Your task to perform on an android device: Check the weather Image 0: 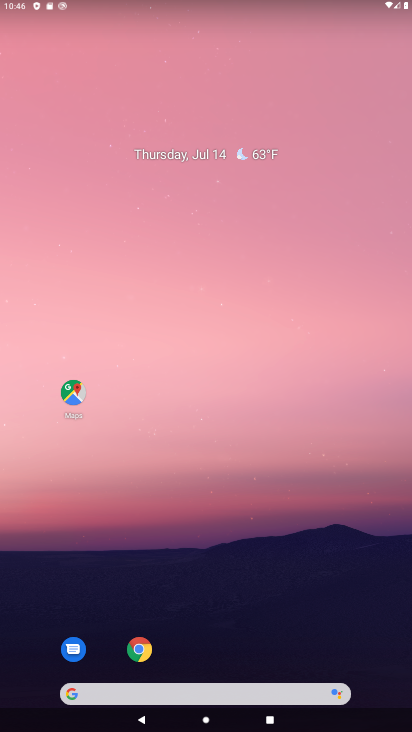
Step 0: drag from (261, 572) to (221, 84)
Your task to perform on an android device: Check the weather Image 1: 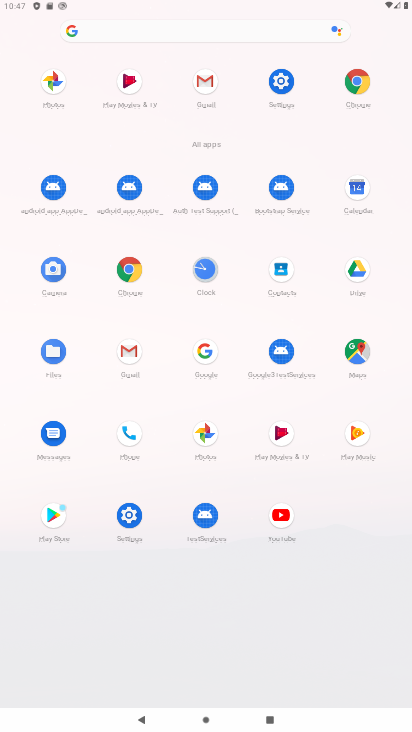
Step 1: click (199, 351)
Your task to perform on an android device: Check the weather Image 2: 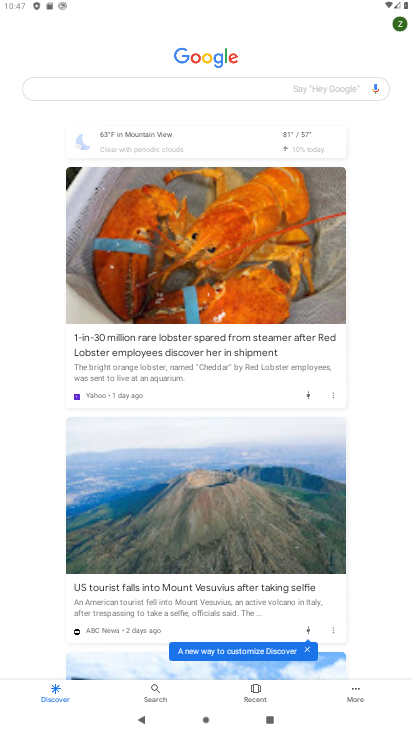
Step 2: click (188, 144)
Your task to perform on an android device: Check the weather Image 3: 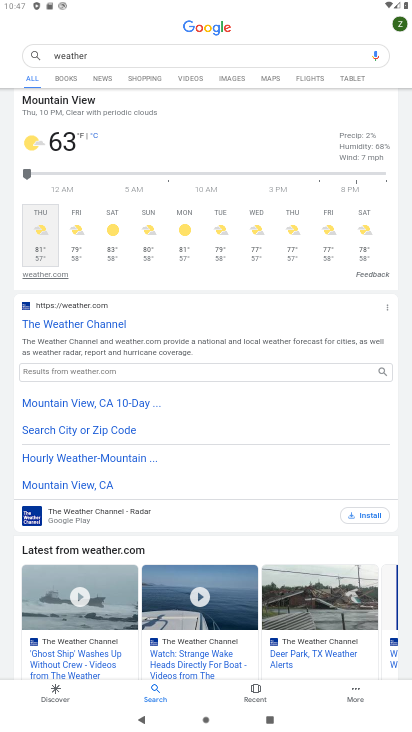
Step 3: task complete